Your task to perform on an android device: Open maps Image 0: 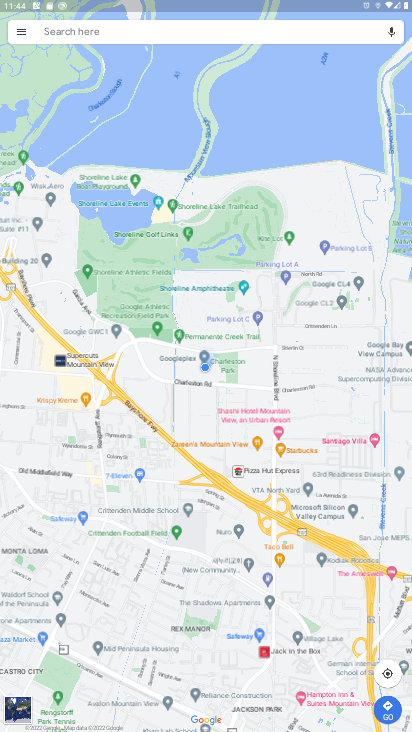
Step 0: task complete